Your task to perform on an android device: install app "Google Drive" Image 0: 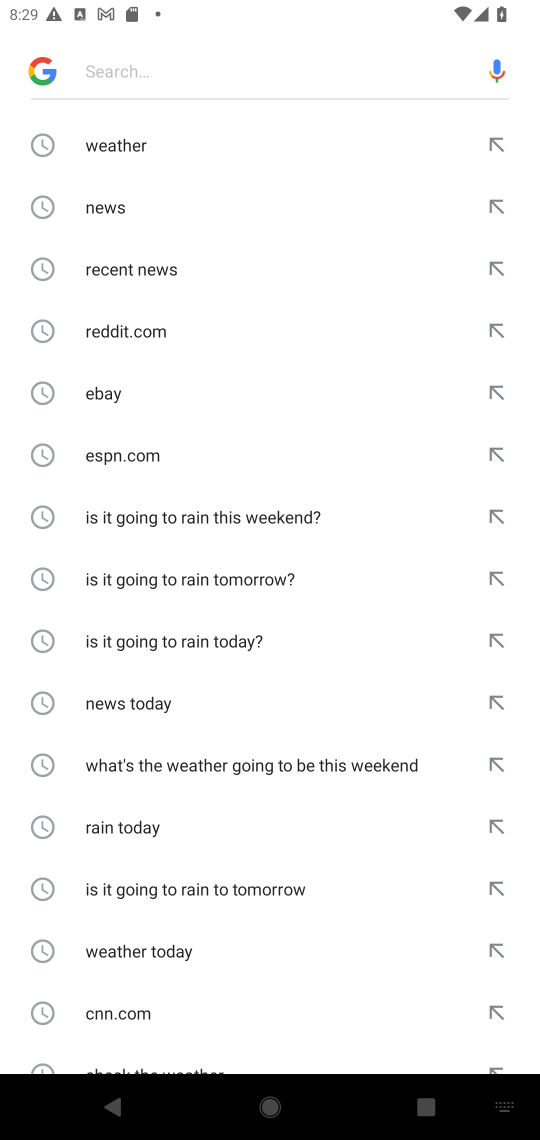
Step 0: press back button
Your task to perform on an android device: install app "Google Drive" Image 1: 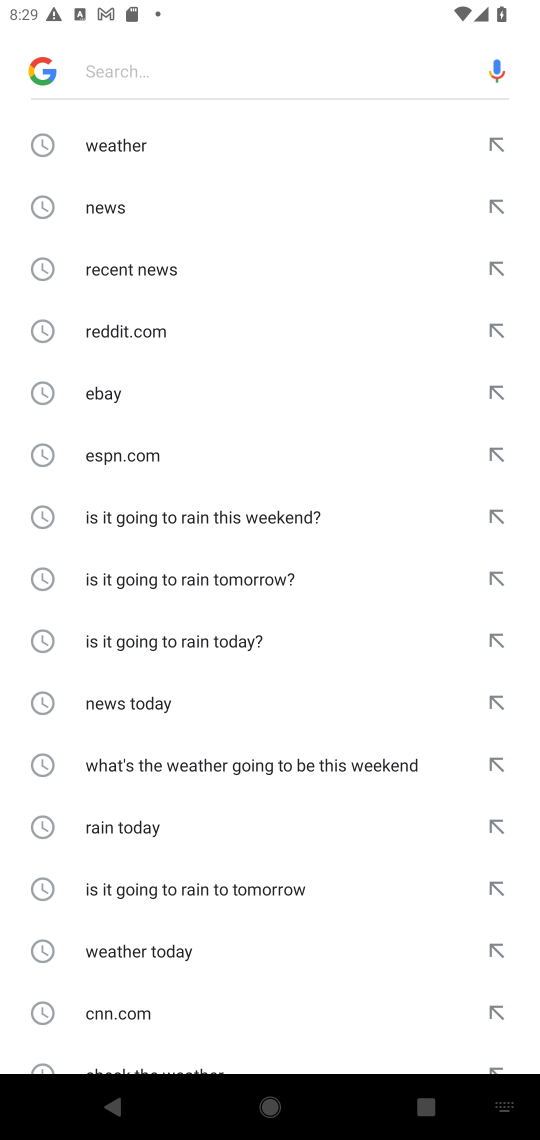
Step 1: press back button
Your task to perform on an android device: install app "Google Drive" Image 2: 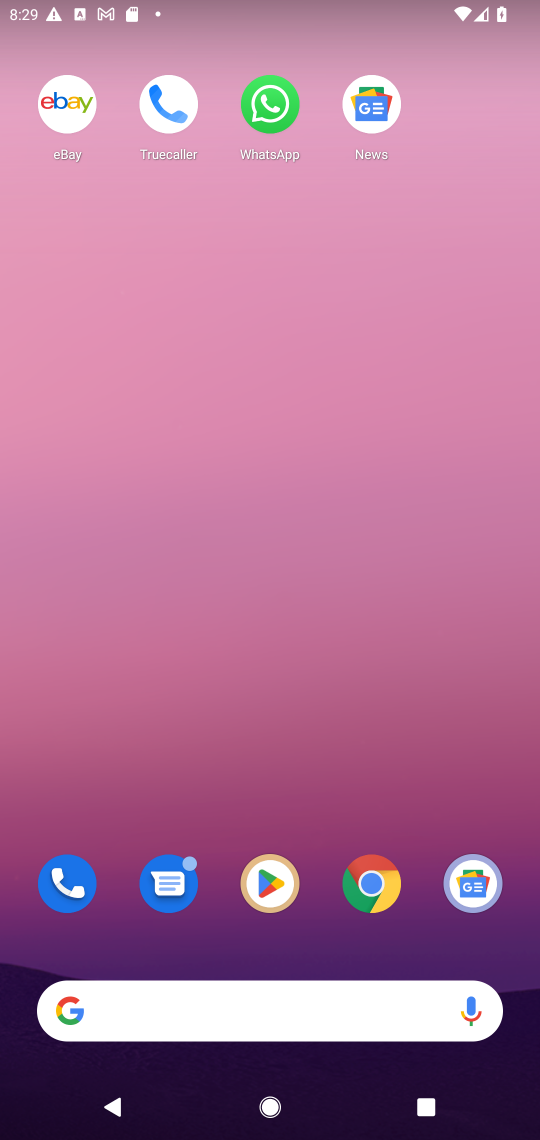
Step 2: click (274, 901)
Your task to perform on an android device: install app "Google Drive" Image 3: 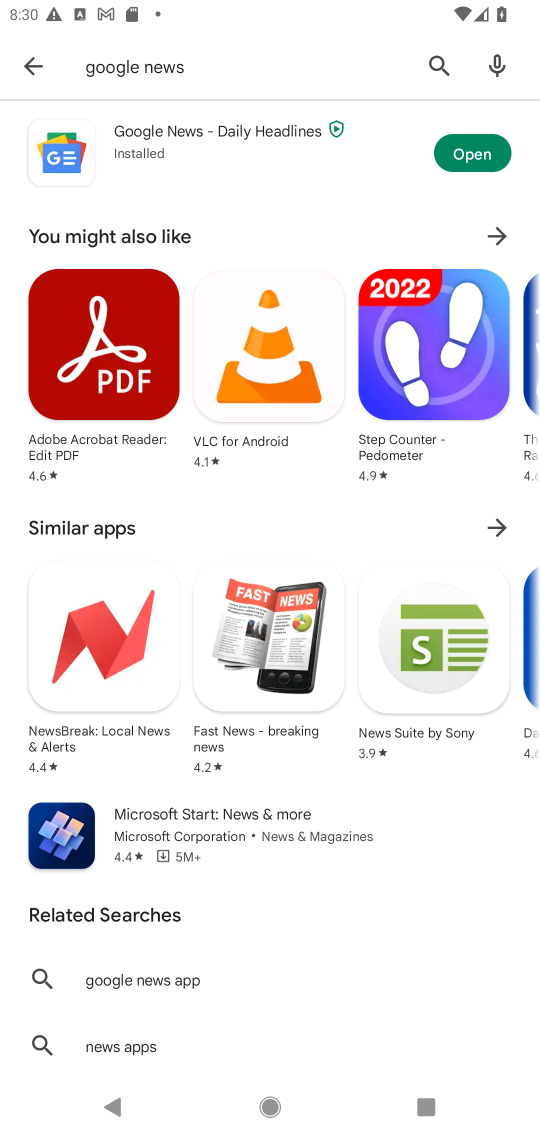
Step 3: click (456, 67)
Your task to perform on an android device: install app "Google Drive" Image 4: 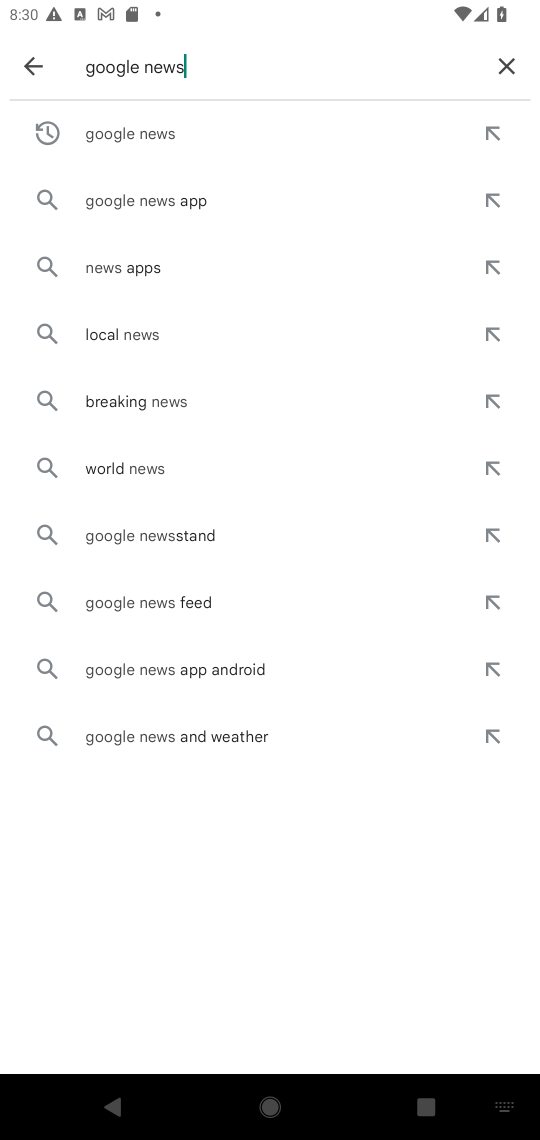
Step 4: click (180, 133)
Your task to perform on an android device: install app "Google Drive" Image 5: 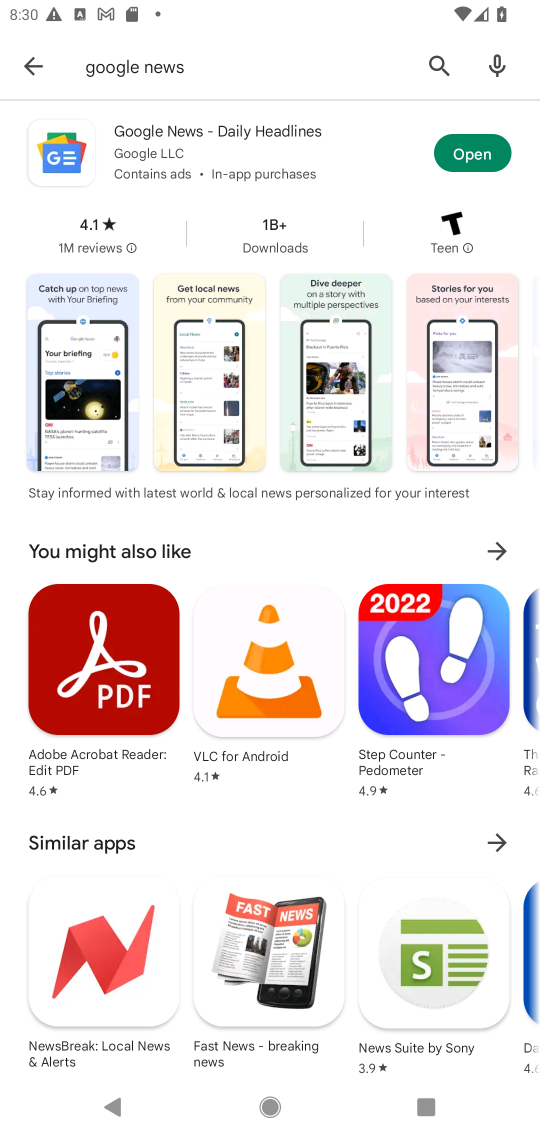
Step 5: click (424, 67)
Your task to perform on an android device: install app "Google Drive" Image 6: 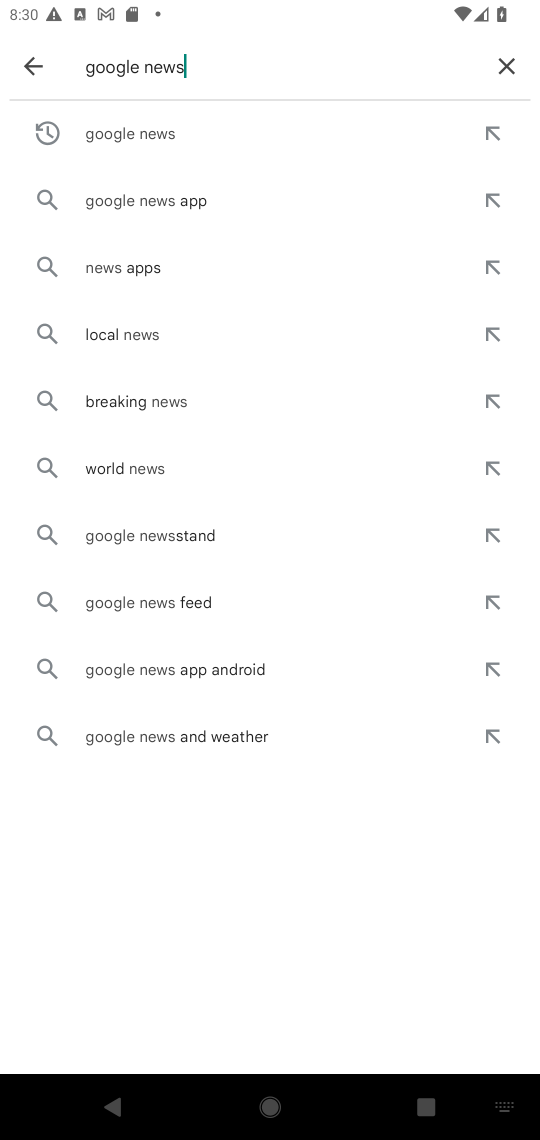
Step 6: click (499, 58)
Your task to perform on an android device: install app "Google Drive" Image 7: 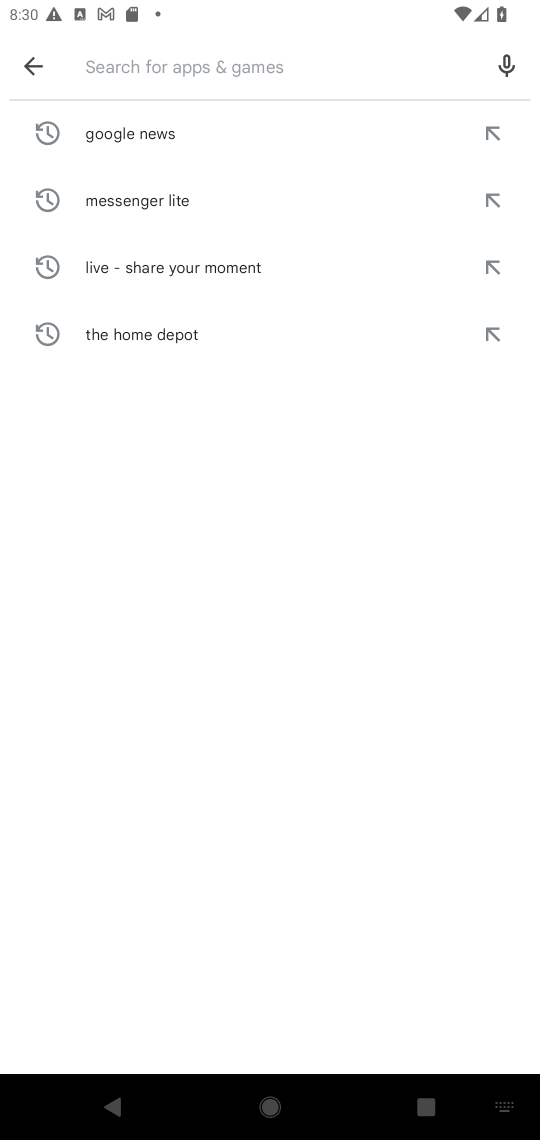
Step 7: type "Google Drive"
Your task to perform on an android device: install app "Google Drive" Image 8: 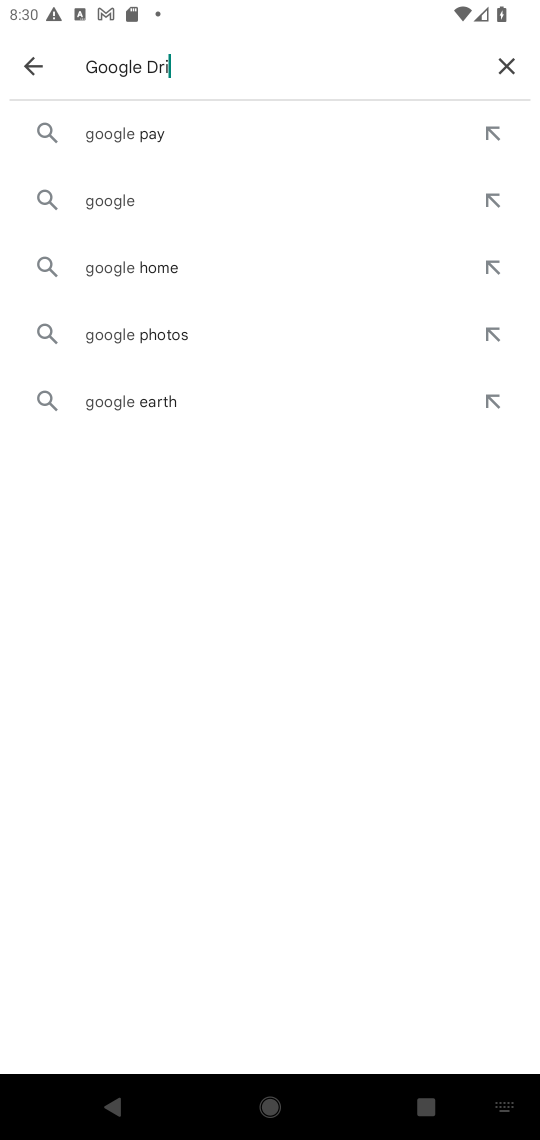
Step 8: type ""
Your task to perform on an android device: install app "Google Drive" Image 9: 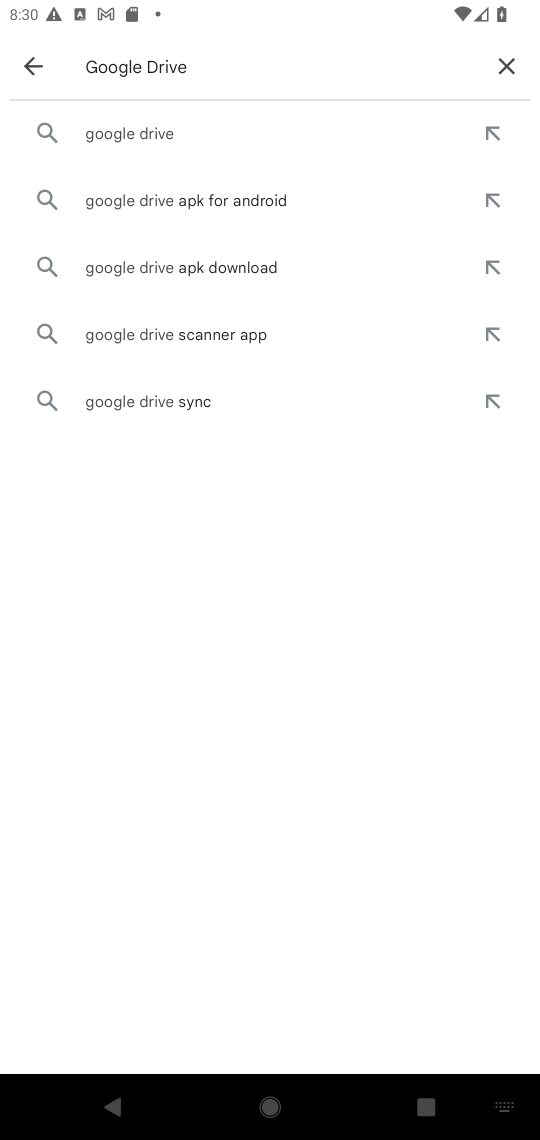
Step 9: click (181, 128)
Your task to perform on an android device: install app "Google Drive" Image 10: 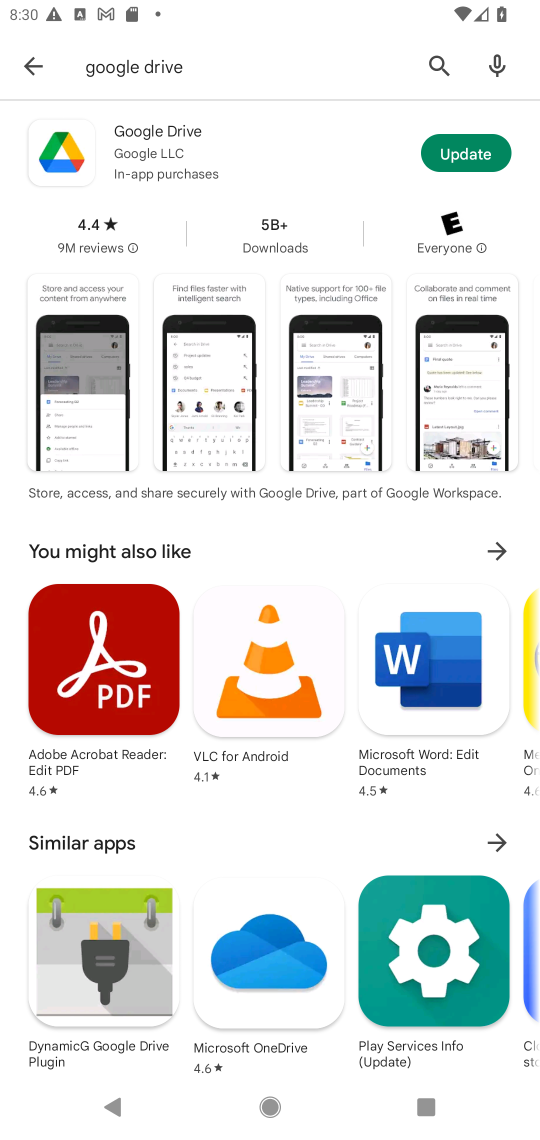
Step 10: click (241, 155)
Your task to perform on an android device: install app "Google Drive" Image 11: 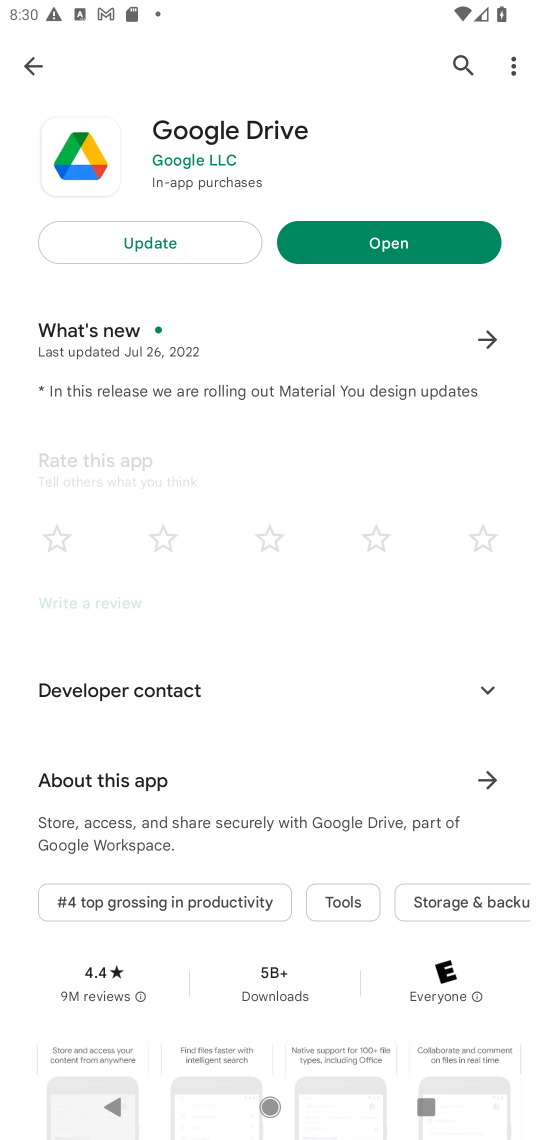
Step 11: task complete